Your task to perform on an android device: add a label to a message in the gmail app Image 0: 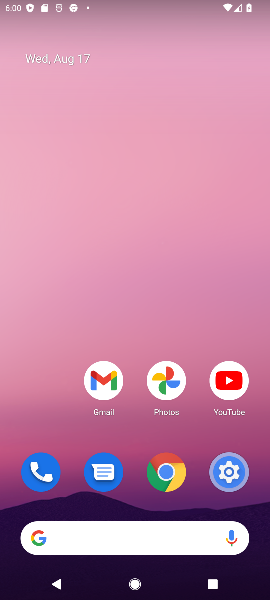
Step 0: click (118, 400)
Your task to perform on an android device: add a label to a message in the gmail app Image 1: 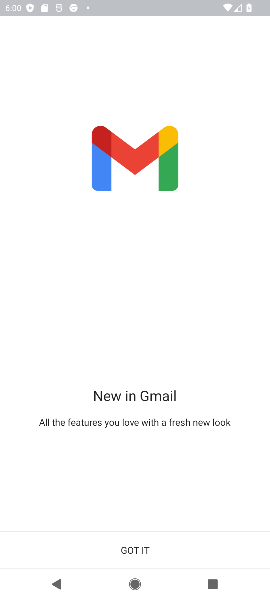
Step 1: click (145, 543)
Your task to perform on an android device: add a label to a message in the gmail app Image 2: 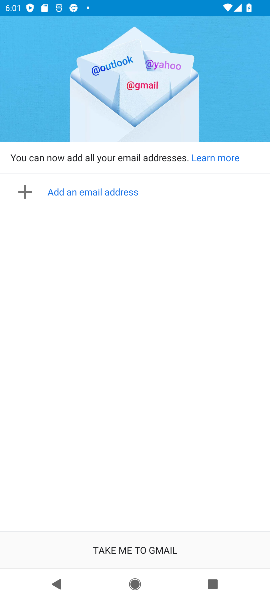
Step 2: task complete